Your task to perform on an android device: Is it going to rain today? Image 0: 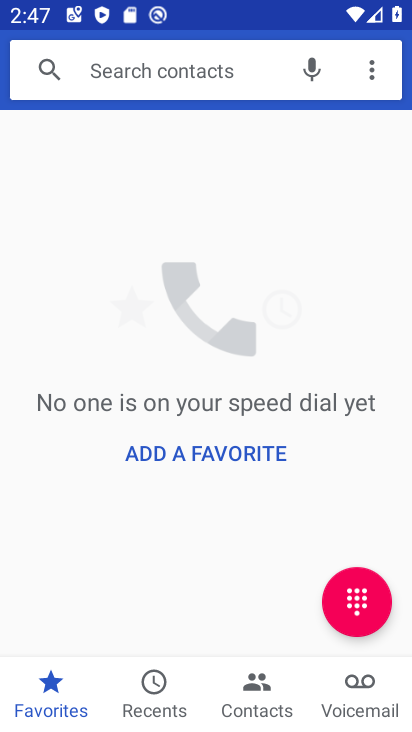
Step 0: drag from (261, 666) to (359, 154)
Your task to perform on an android device: Is it going to rain today? Image 1: 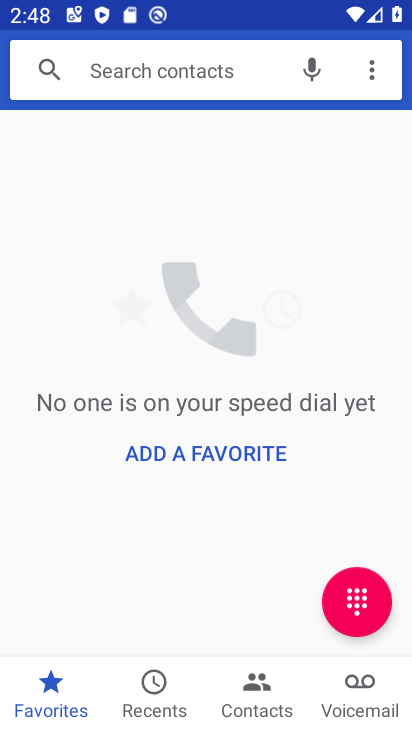
Step 1: press home button
Your task to perform on an android device: Is it going to rain today? Image 2: 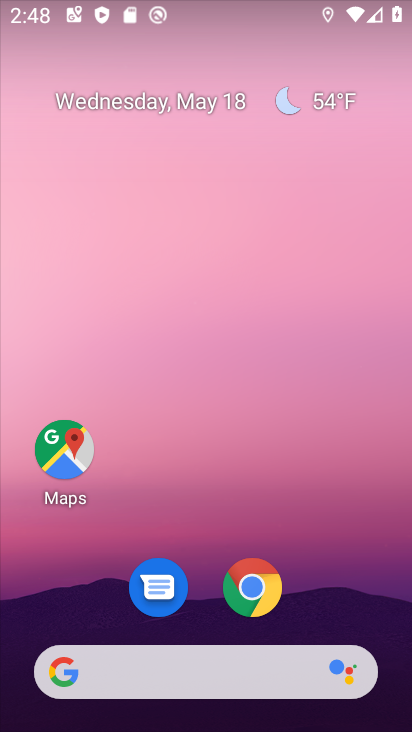
Step 2: drag from (205, 623) to (164, 0)
Your task to perform on an android device: Is it going to rain today? Image 3: 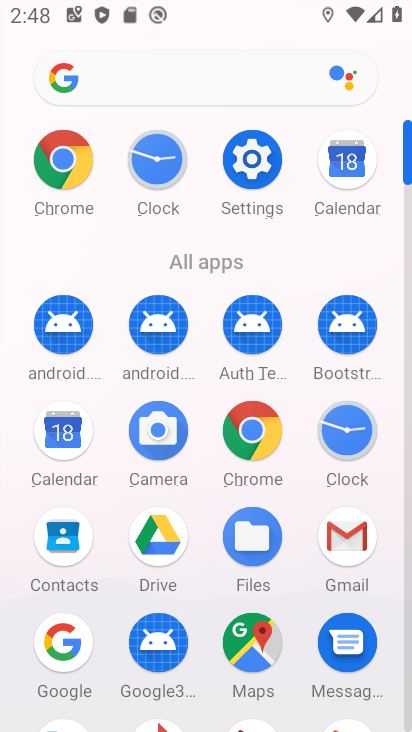
Step 3: click (142, 70)
Your task to perform on an android device: Is it going to rain today? Image 4: 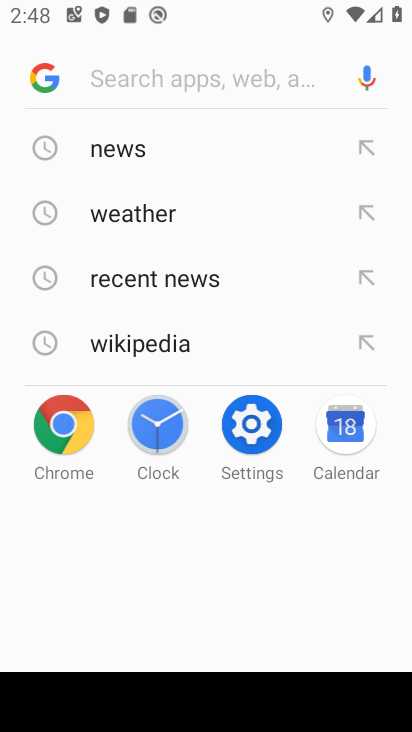
Step 4: type "rain today"
Your task to perform on an android device: Is it going to rain today? Image 5: 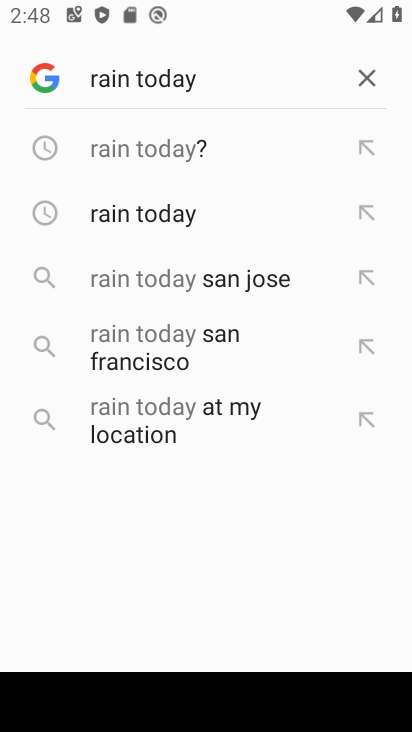
Step 5: click (162, 139)
Your task to perform on an android device: Is it going to rain today? Image 6: 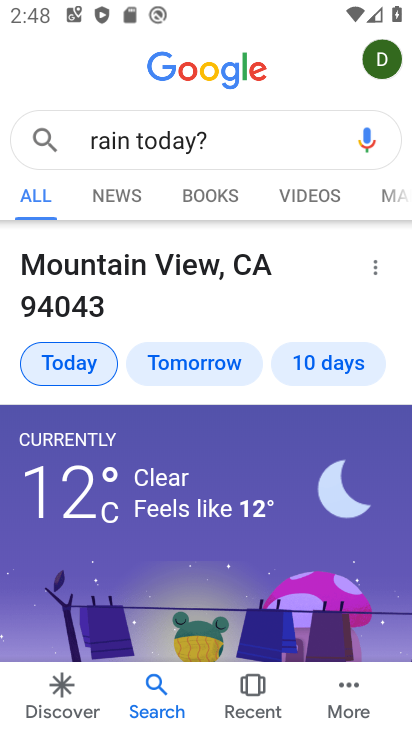
Step 6: task complete